Your task to perform on an android device: turn pop-ups on in chrome Image 0: 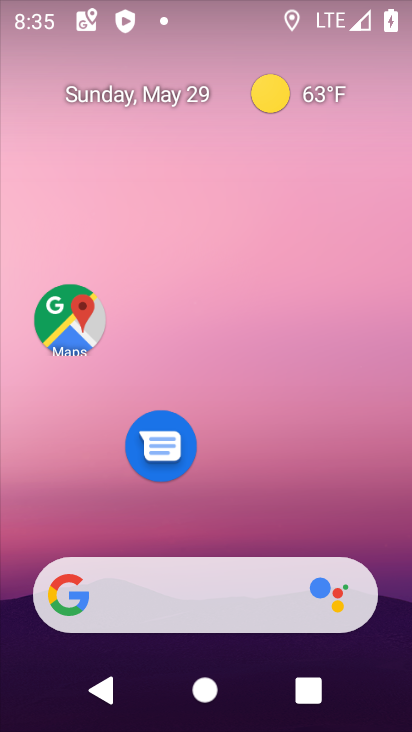
Step 0: drag from (226, 527) to (200, 202)
Your task to perform on an android device: turn pop-ups on in chrome Image 1: 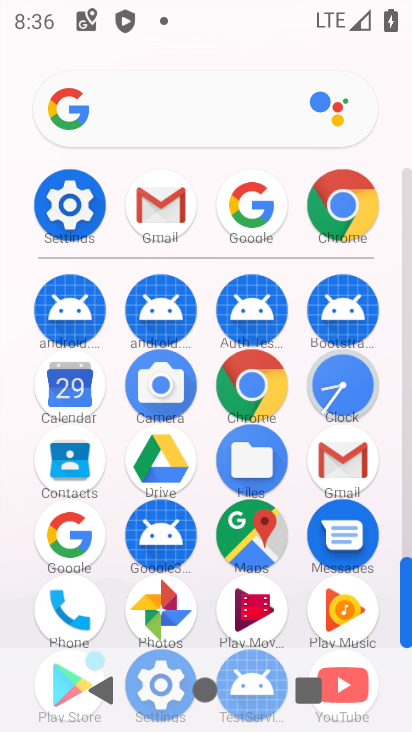
Step 1: click (237, 391)
Your task to perform on an android device: turn pop-ups on in chrome Image 2: 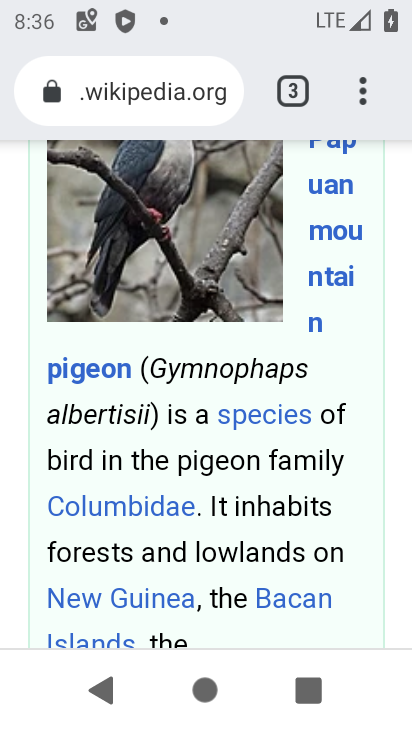
Step 2: drag from (357, 87) to (109, 467)
Your task to perform on an android device: turn pop-ups on in chrome Image 3: 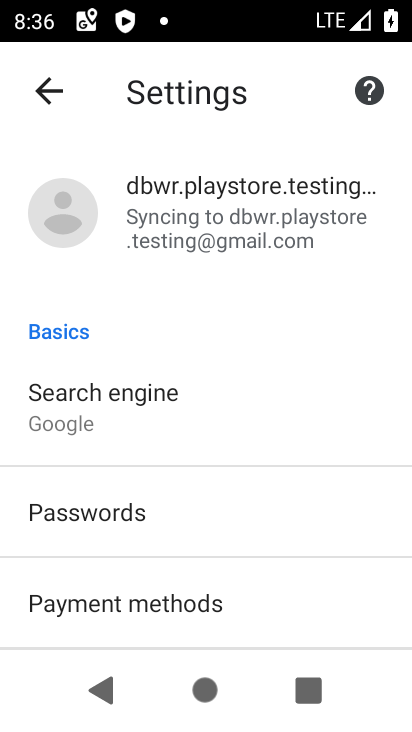
Step 3: drag from (184, 494) to (206, 231)
Your task to perform on an android device: turn pop-ups on in chrome Image 4: 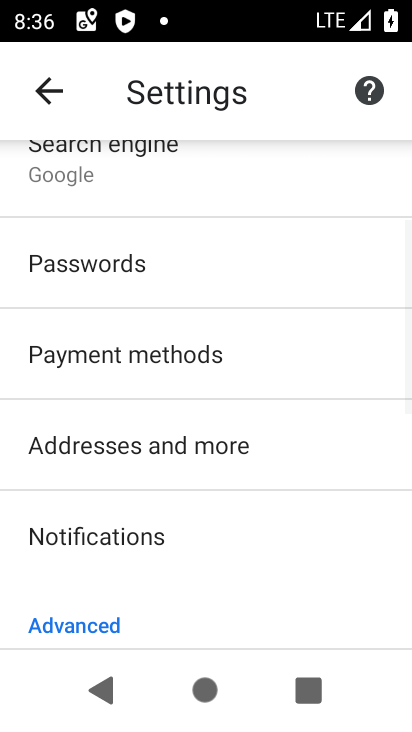
Step 4: drag from (213, 582) to (216, 283)
Your task to perform on an android device: turn pop-ups on in chrome Image 5: 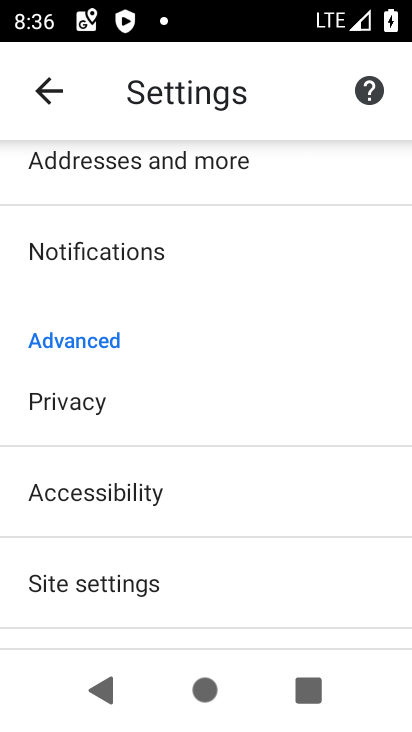
Step 5: click (180, 567)
Your task to perform on an android device: turn pop-ups on in chrome Image 6: 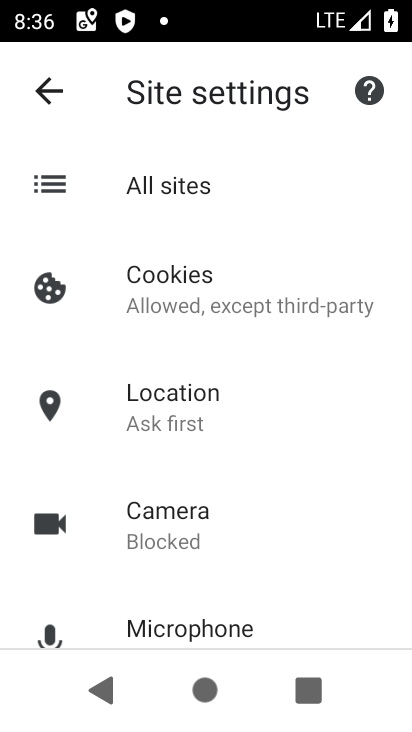
Step 6: drag from (186, 567) to (219, 341)
Your task to perform on an android device: turn pop-ups on in chrome Image 7: 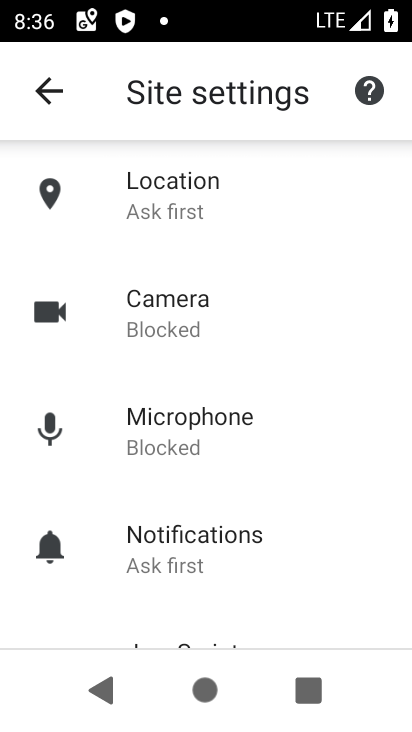
Step 7: drag from (251, 569) to (247, 344)
Your task to perform on an android device: turn pop-ups on in chrome Image 8: 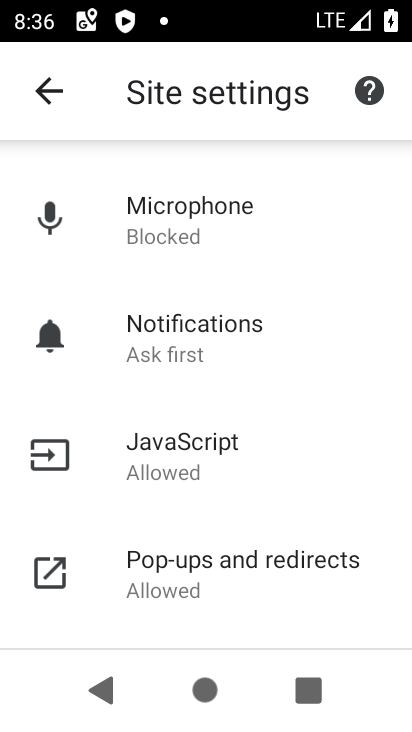
Step 8: click (253, 572)
Your task to perform on an android device: turn pop-ups on in chrome Image 9: 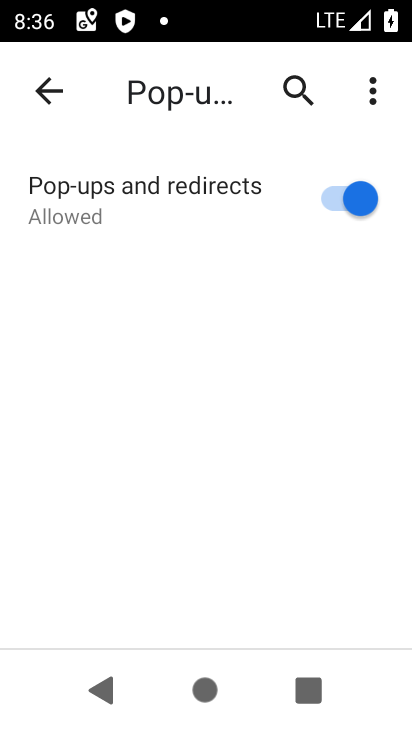
Step 9: task complete